Your task to perform on an android device: toggle location history Image 0: 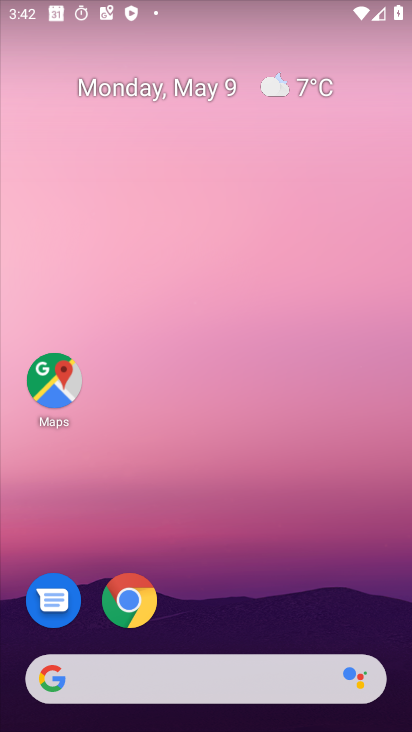
Step 0: drag from (246, 567) to (236, 38)
Your task to perform on an android device: toggle location history Image 1: 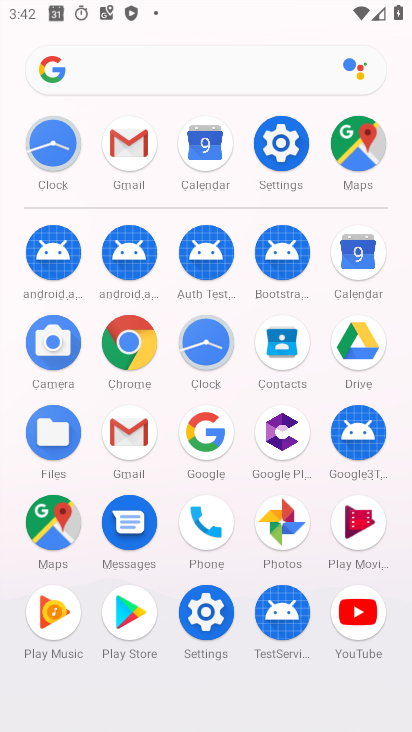
Step 1: click (278, 145)
Your task to perform on an android device: toggle location history Image 2: 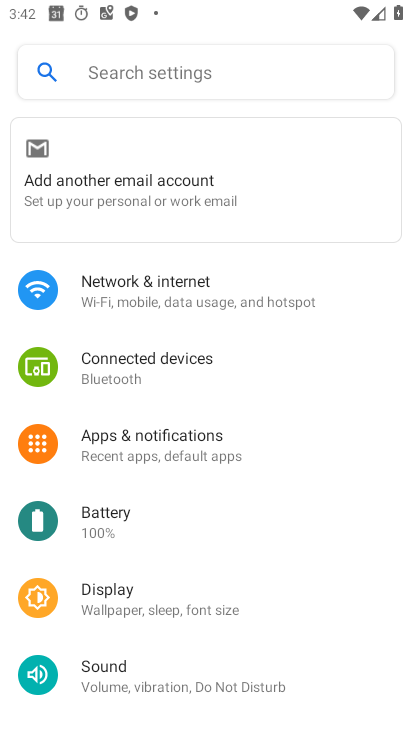
Step 2: drag from (208, 616) to (275, 133)
Your task to perform on an android device: toggle location history Image 3: 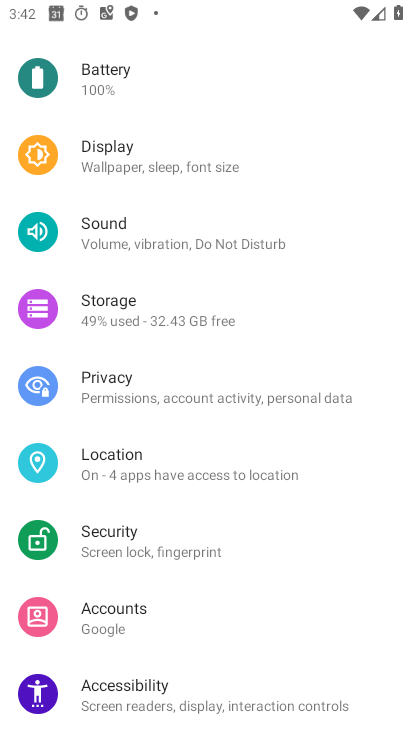
Step 3: click (141, 472)
Your task to perform on an android device: toggle location history Image 4: 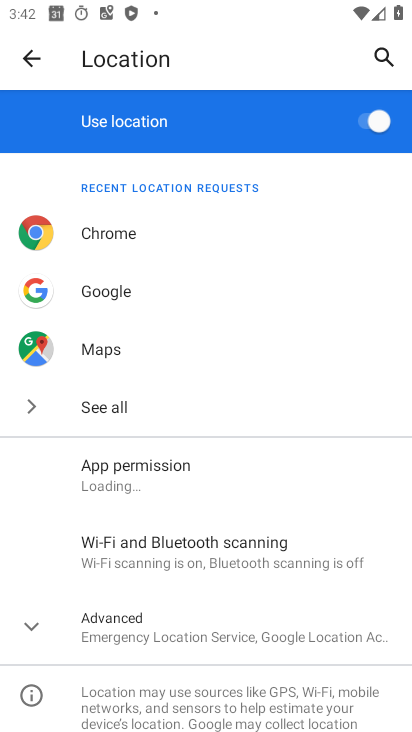
Step 4: click (144, 622)
Your task to perform on an android device: toggle location history Image 5: 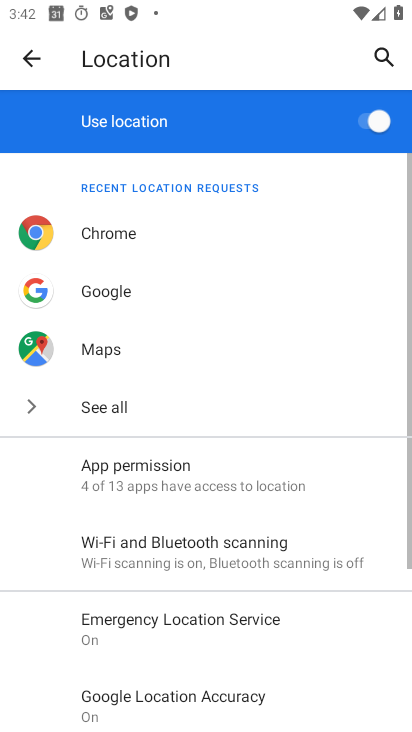
Step 5: drag from (271, 510) to (289, 84)
Your task to perform on an android device: toggle location history Image 6: 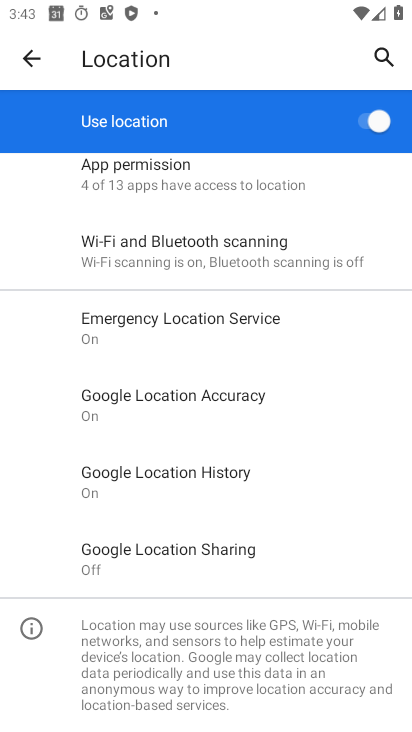
Step 6: click (230, 471)
Your task to perform on an android device: toggle location history Image 7: 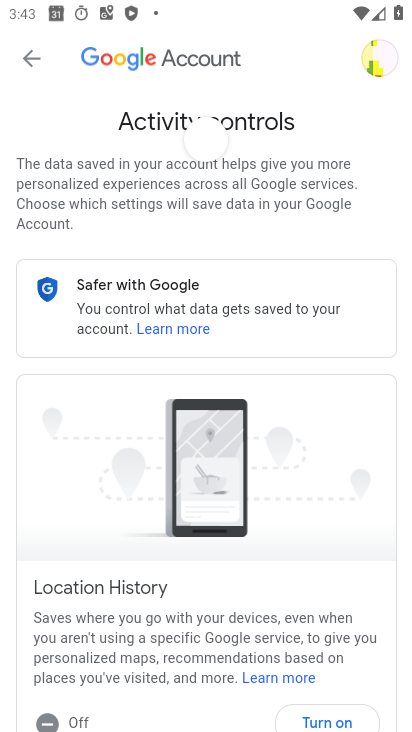
Step 7: drag from (299, 545) to (319, 169)
Your task to perform on an android device: toggle location history Image 8: 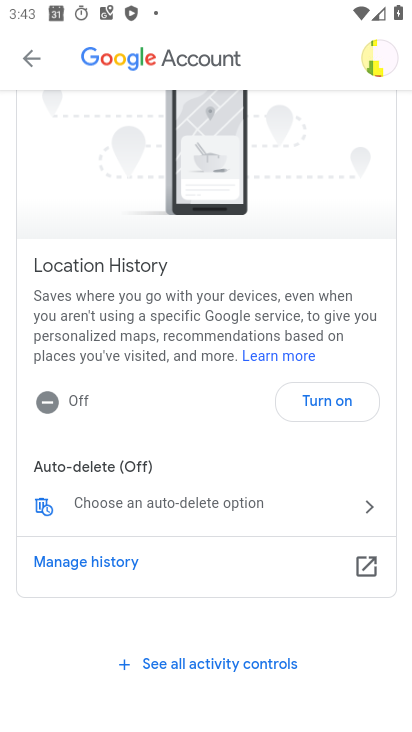
Step 8: click (315, 402)
Your task to perform on an android device: toggle location history Image 9: 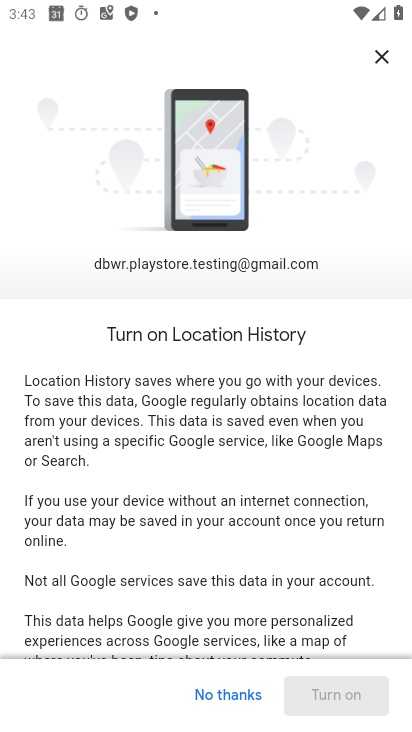
Step 9: drag from (267, 588) to (299, 89)
Your task to perform on an android device: toggle location history Image 10: 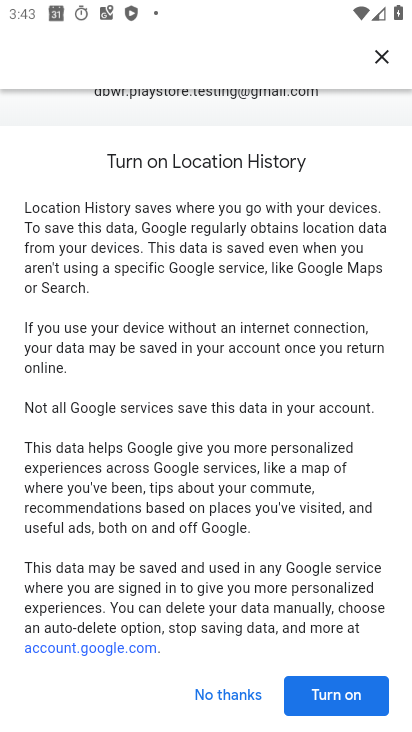
Step 10: click (323, 689)
Your task to perform on an android device: toggle location history Image 11: 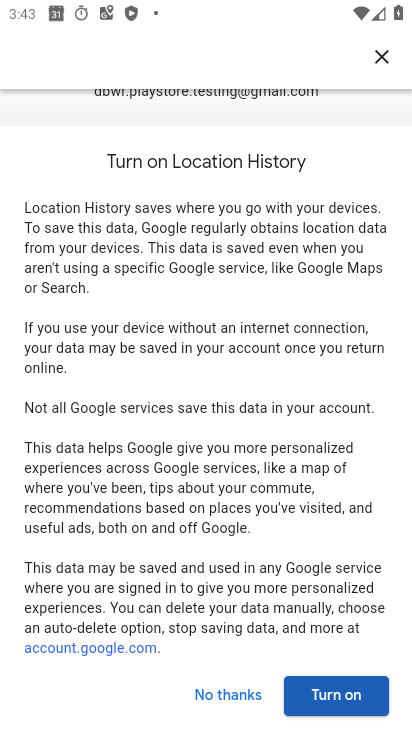
Step 11: click (339, 705)
Your task to perform on an android device: toggle location history Image 12: 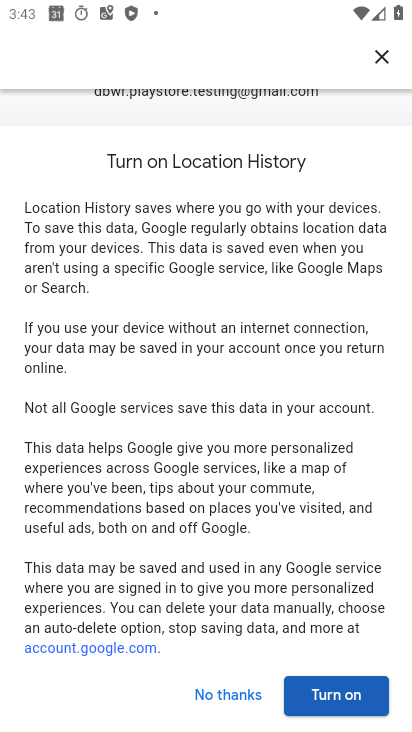
Step 12: click (350, 700)
Your task to perform on an android device: toggle location history Image 13: 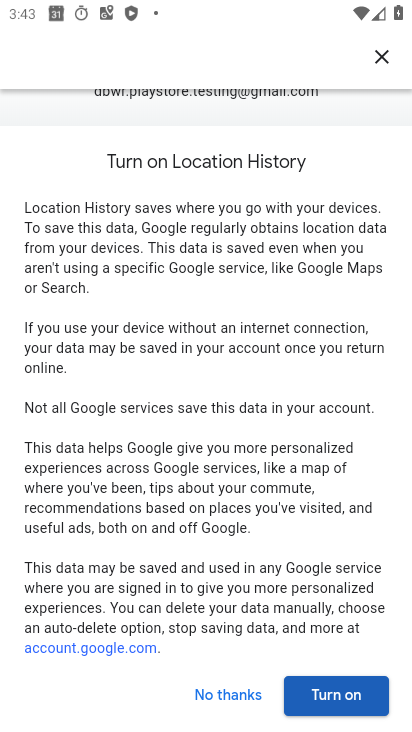
Step 13: click (344, 690)
Your task to perform on an android device: toggle location history Image 14: 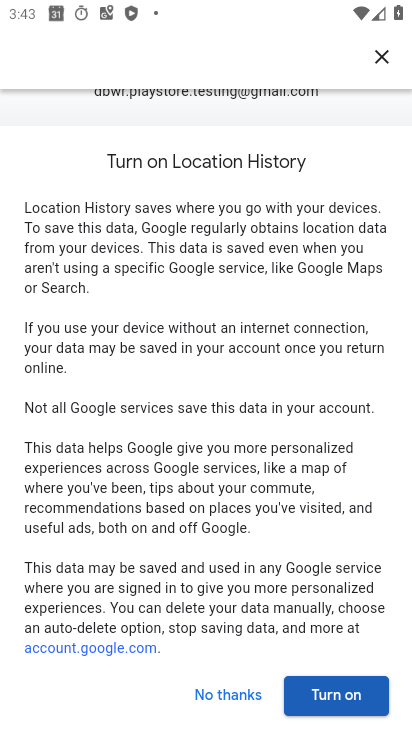
Step 14: click (324, 698)
Your task to perform on an android device: toggle location history Image 15: 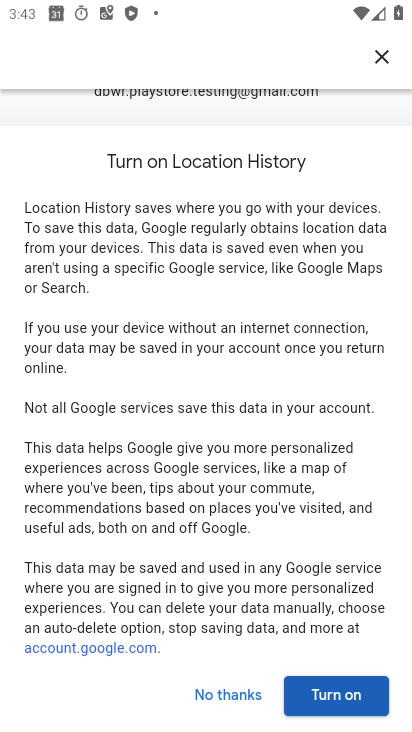
Step 15: click (308, 432)
Your task to perform on an android device: toggle location history Image 16: 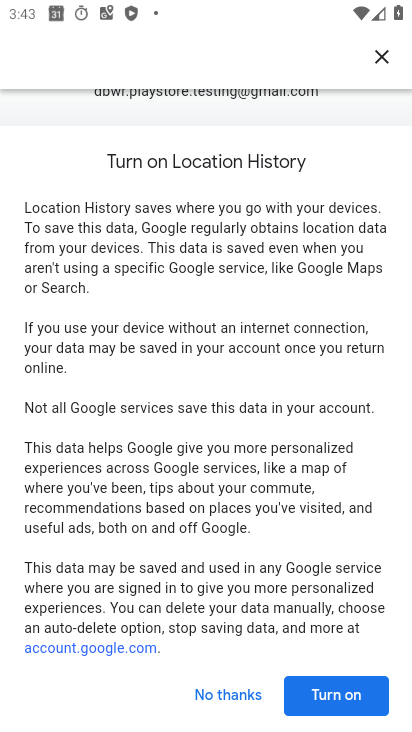
Step 16: click (356, 701)
Your task to perform on an android device: toggle location history Image 17: 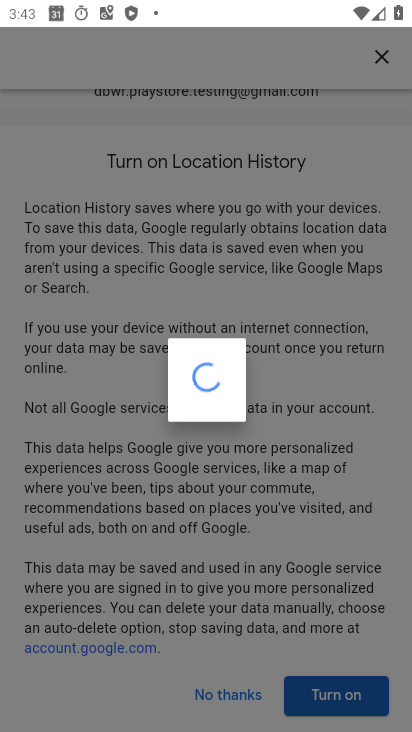
Step 17: click (320, 695)
Your task to perform on an android device: toggle location history Image 18: 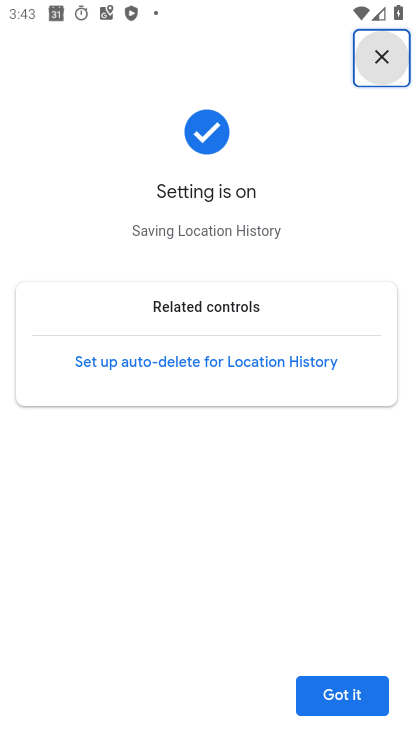
Step 18: task complete